Your task to perform on an android device: Play the last video I watched on Youtube Image 0: 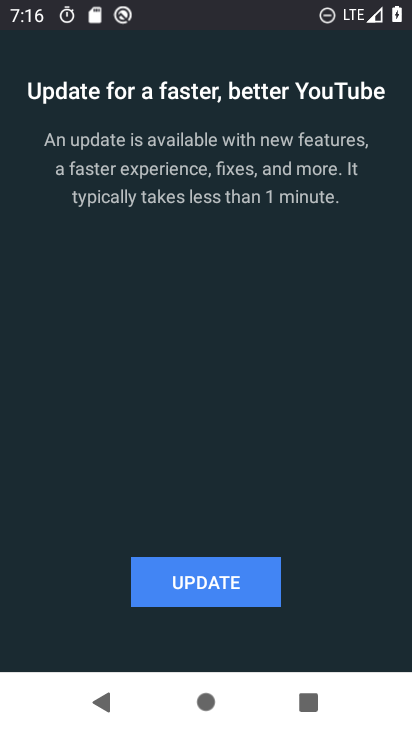
Step 0: press home button
Your task to perform on an android device: Play the last video I watched on Youtube Image 1: 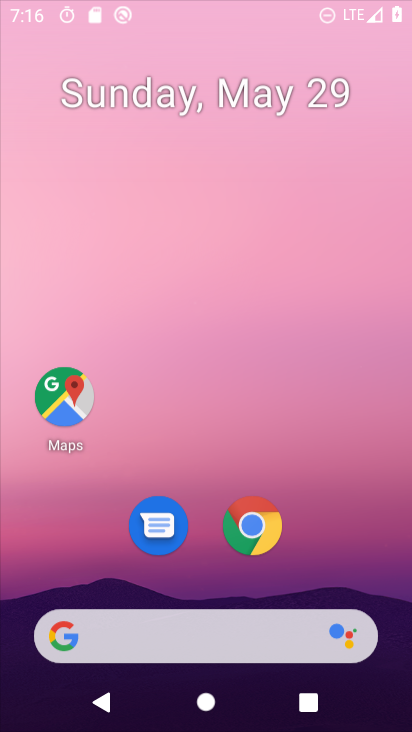
Step 1: drag from (396, 624) to (278, 45)
Your task to perform on an android device: Play the last video I watched on Youtube Image 2: 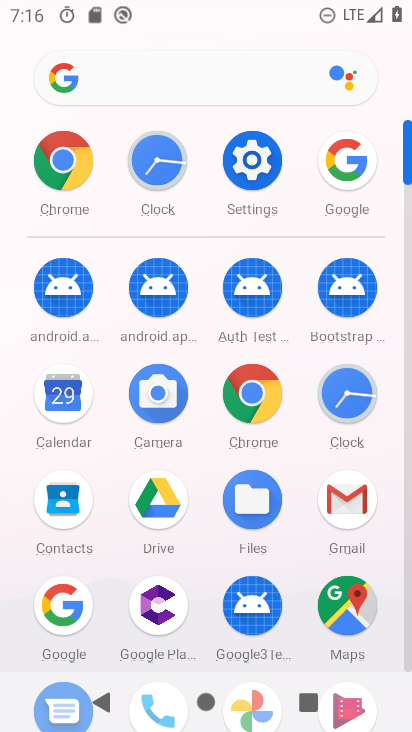
Step 2: drag from (346, 655) to (280, 110)
Your task to perform on an android device: Play the last video I watched on Youtube Image 3: 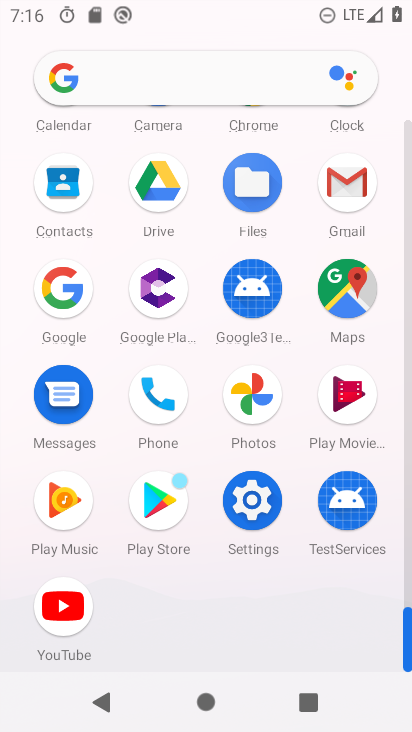
Step 3: click (84, 609)
Your task to perform on an android device: Play the last video I watched on Youtube Image 4: 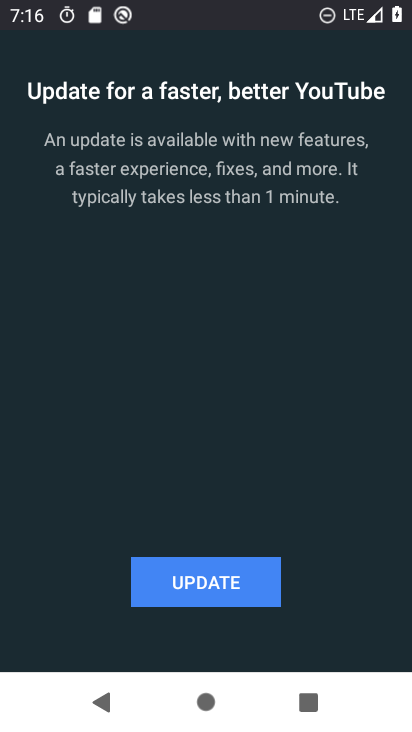
Step 4: click (166, 578)
Your task to perform on an android device: Play the last video I watched on Youtube Image 5: 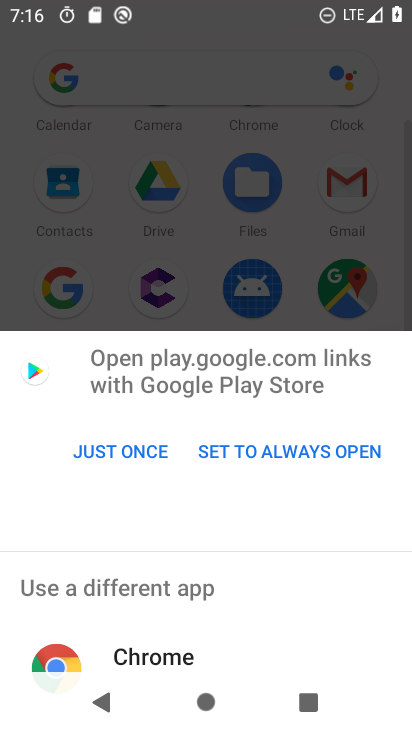
Step 5: click (117, 468)
Your task to perform on an android device: Play the last video I watched on Youtube Image 6: 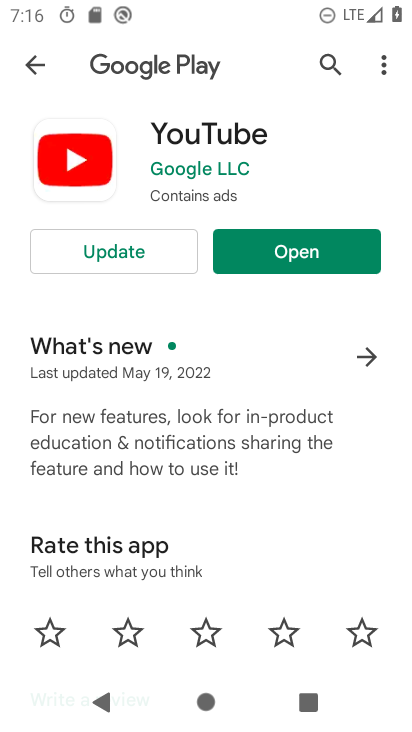
Step 6: click (102, 248)
Your task to perform on an android device: Play the last video I watched on Youtube Image 7: 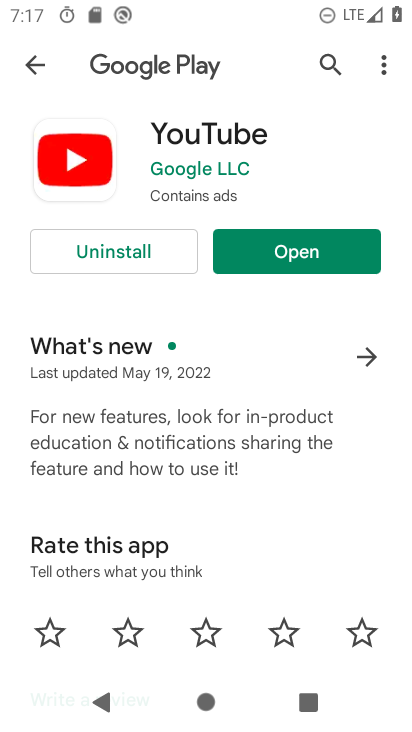
Step 7: click (303, 243)
Your task to perform on an android device: Play the last video I watched on Youtube Image 8: 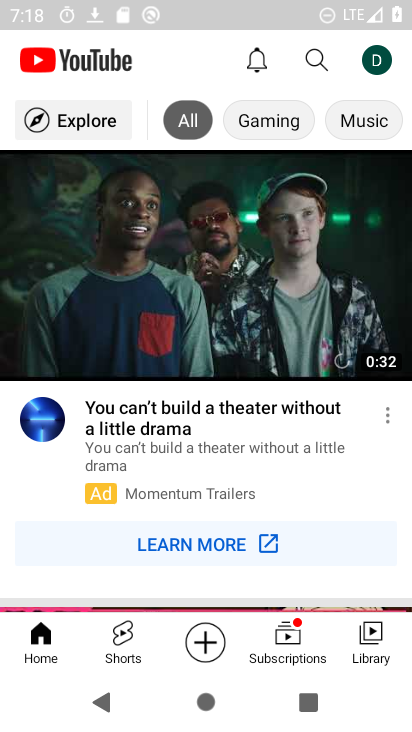
Step 8: click (359, 630)
Your task to perform on an android device: Play the last video I watched on Youtube Image 9: 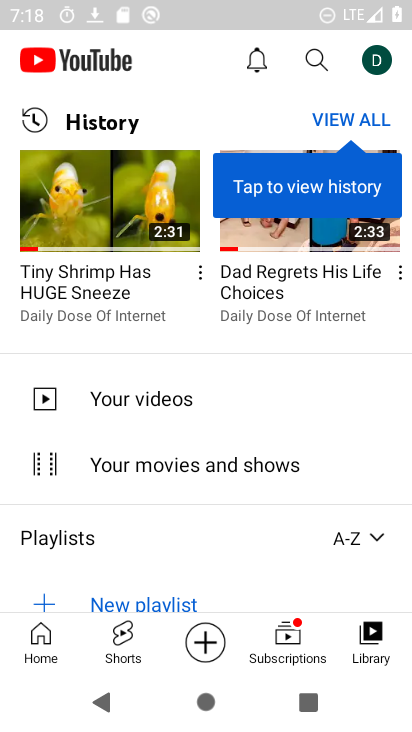
Step 9: click (78, 201)
Your task to perform on an android device: Play the last video I watched on Youtube Image 10: 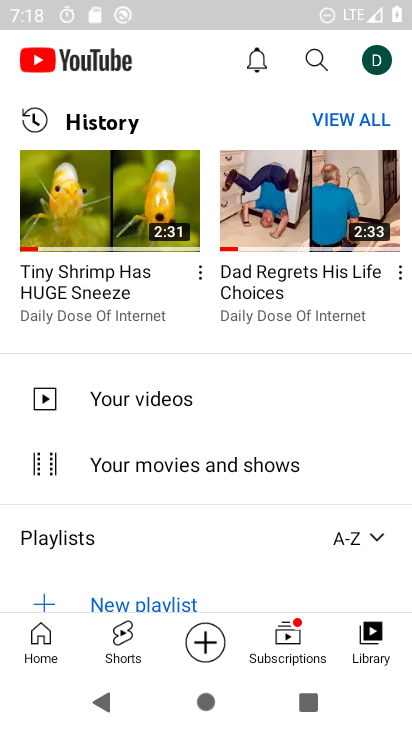
Step 10: click (81, 197)
Your task to perform on an android device: Play the last video I watched on Youtube Image 11: 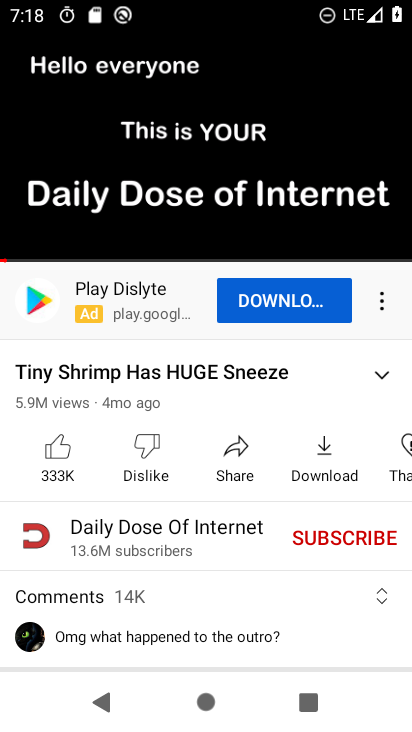
Step 11: click (213, 156)
Your task to perform on an android device: Play the last video I watched on Youtube Image 12: 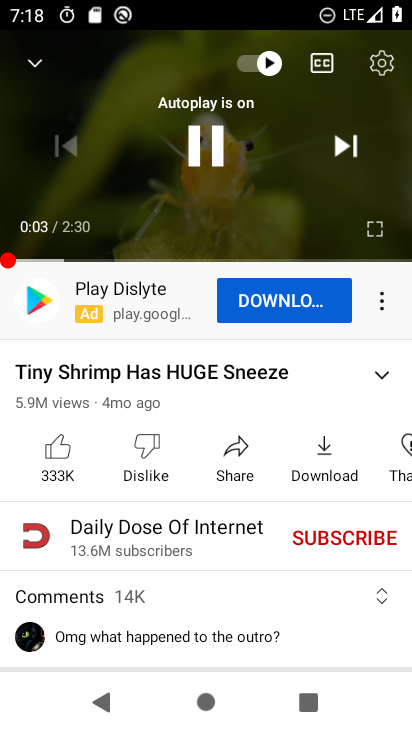
Step 12: click (213, 156)
Your task to perform on an android device: Play the last video I watched on Youtube Image 13: 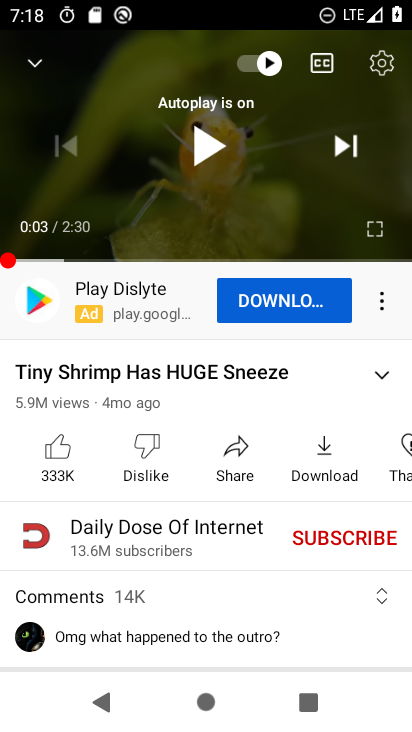
Step 13: task complete